Your task to perform on an android device: change notifications settings Image 0: 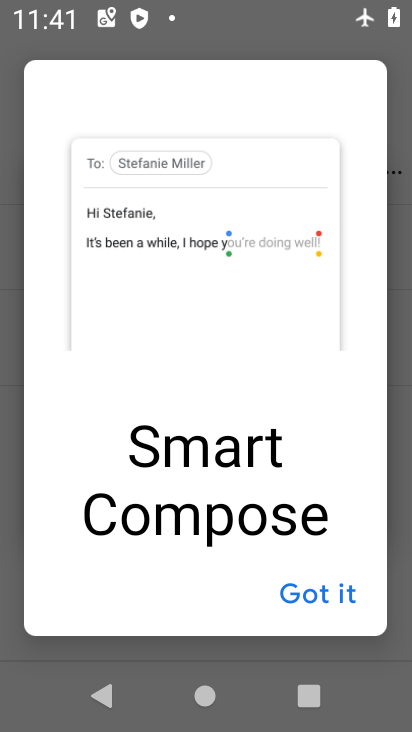
Step 0: press home button
Your task to perform on an android device: change notifications settings Image 1: 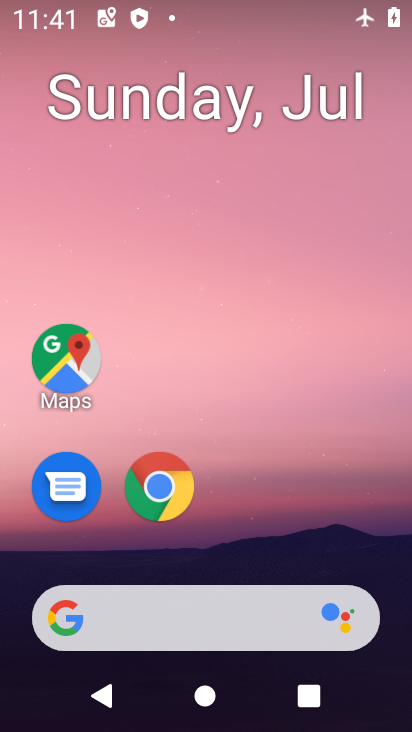
Step 1: drag from (355, 501) to (354, 70)
Your task to perform on an android device: change notifications settings Image 2: 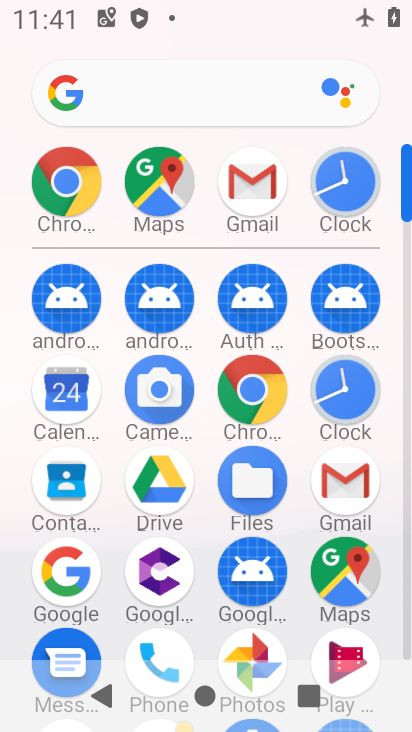
Step 2: drag from (392, 519) to (391, 239)
Your task to perform on an android device: change notifications settings Image 3: 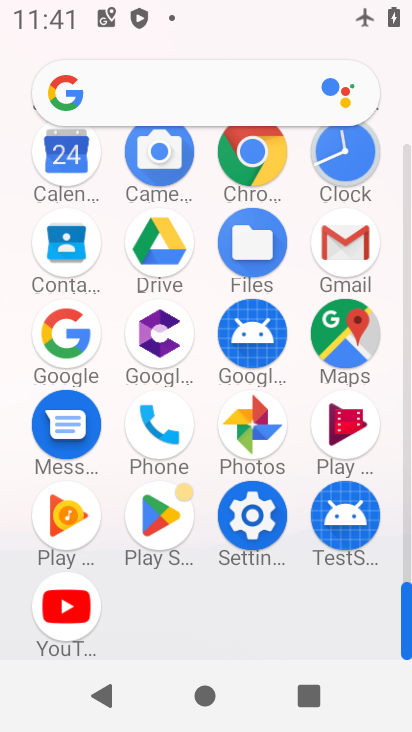
Step 3: click (258, 529)
Your task to perform on an android device: change notifications settings Image 4: 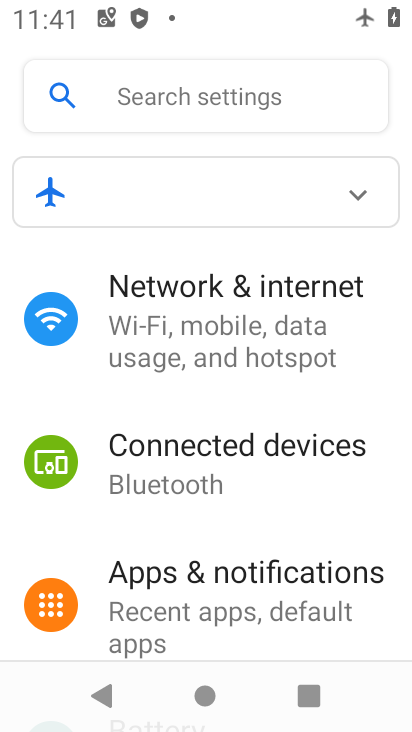
Step 4: drag from (360, 501) to (359, 396)
Your task to perform on an android device: change notifications settings Image 5: 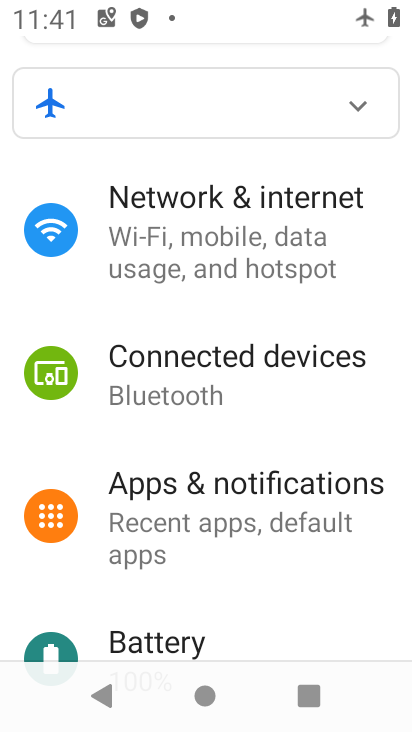
Step 5: drag from (367, 563) to (348, 393)
Your task to perform on an android device: change notifications settings Image 6: 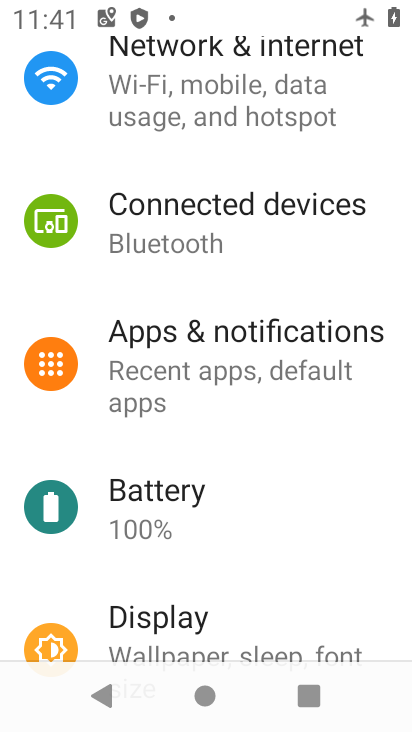
Step 6: drag from (356, 541) to (343, 410)
Your task to perform on an android device: change notifications settings Image 7: 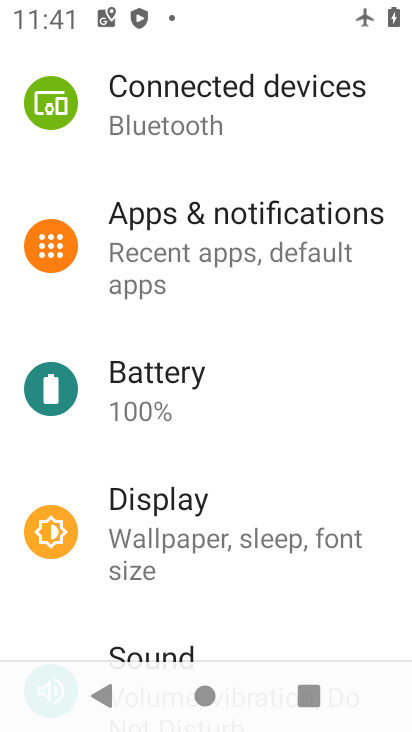
Step 7: drag from (343, 587) to (325, 445)
Your task to perform on an android device: change notifications settings Image 8: 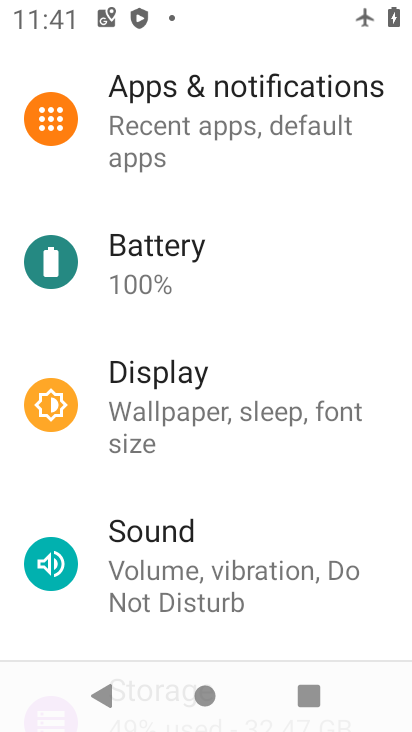
Step 8: click (235, 106)
Your task to perform on an android device: change notifications settings Image 9: 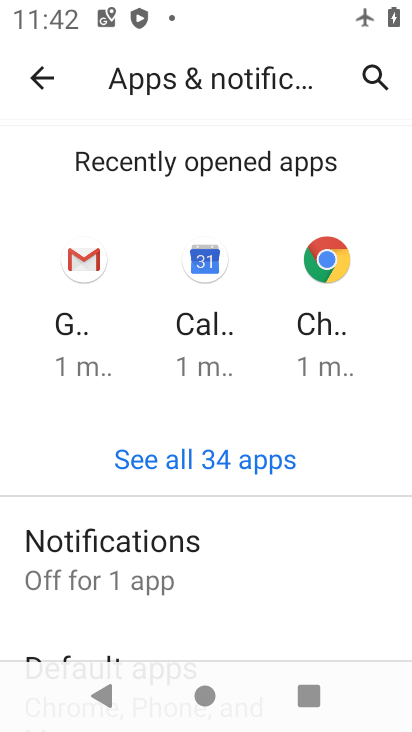
Step 9: drag from (300, 515) to (308, 386)
Your task to perform on an android device: change notifications settings Image 10: 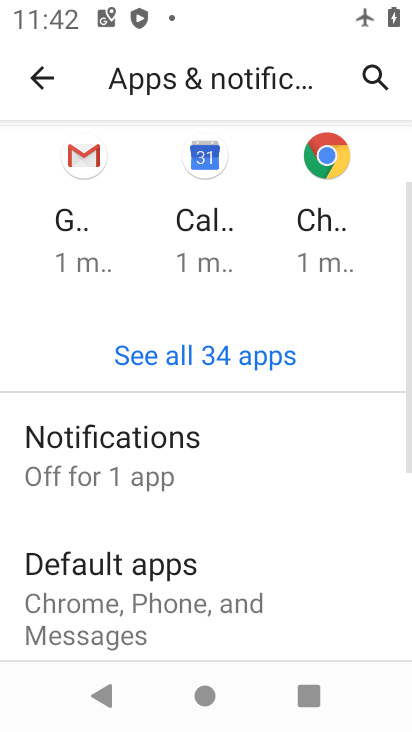
Step 10: drag from (309, 517) to (310, 389)
Your task to perform on an android device: change notifications settings Image 11: 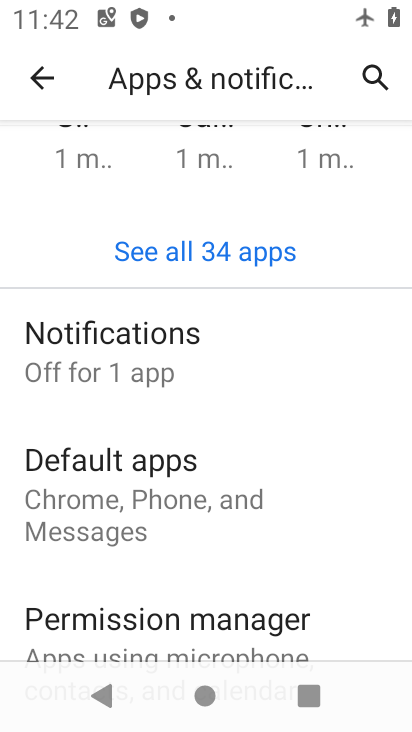
Step 11: drag from (317, 531) to (307, 431)
Your task to perform on an android device: change notifications settings Image 12: 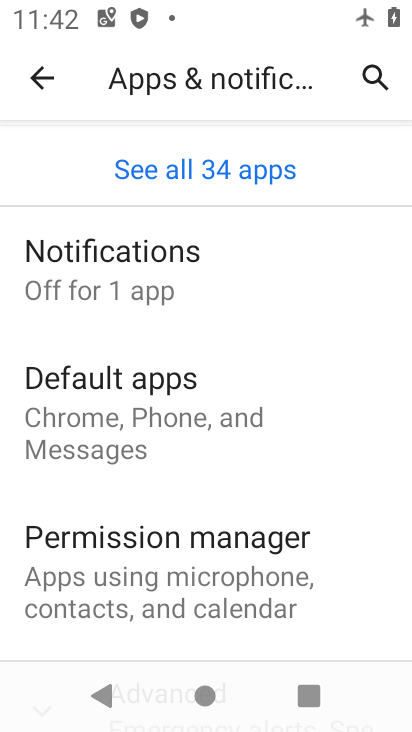
Step 12: click (212, 276)
Your task to perform on an android device: change notifications settings Image 13: 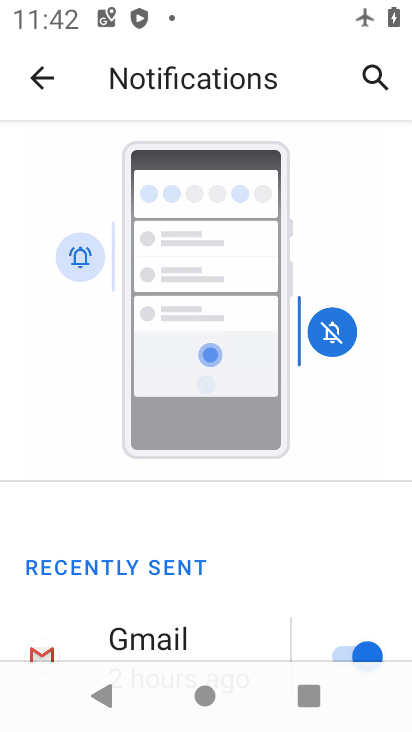
Step 13: drag from (256, 488) to (259, 425)
Your task to perform on an android device: change notifications settings Image 14: 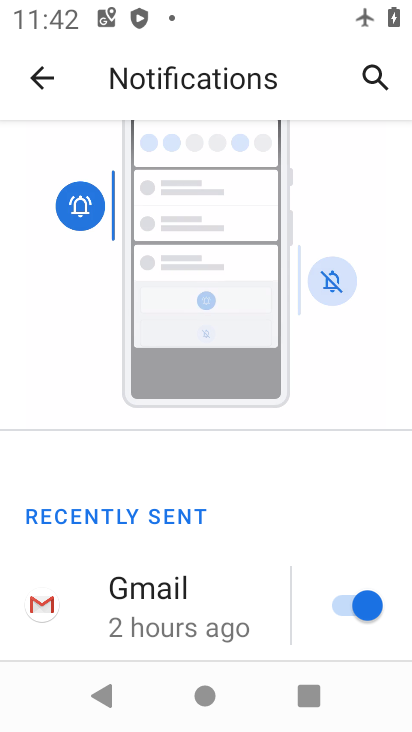
Step 14: drag from (246, 532) to (244, 397)
Your task to perform on an android device: change notifications settings Image 15: 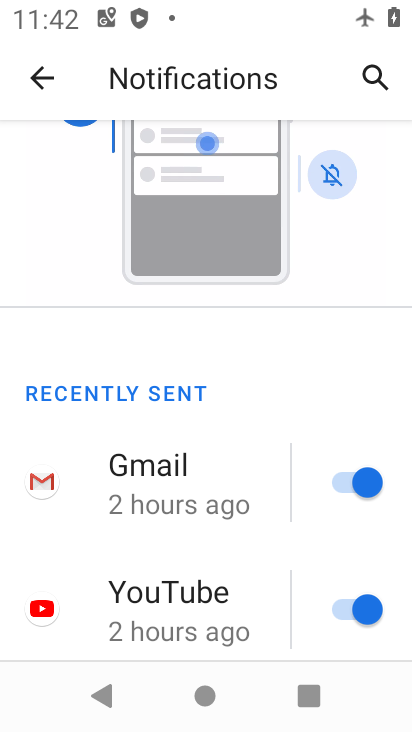
Step 15: drag from (249, 529) to (252, 407)
Your task to perform on an android device: change notifications settings Image 16: 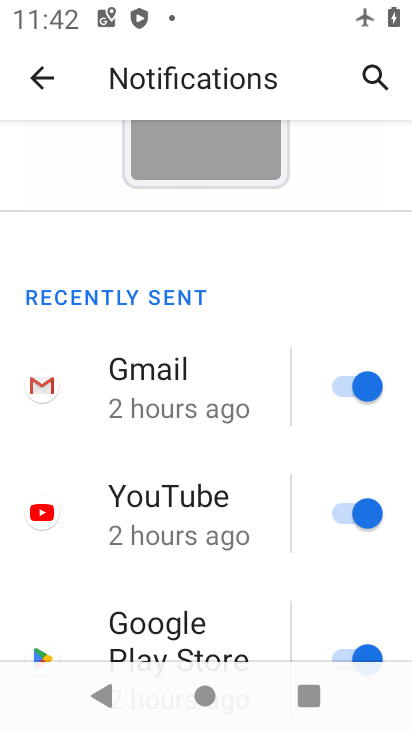
Step 16: drag from (247, 551) to (240, 338)
Your task to perform on an android device: change notifications settings Image 17: 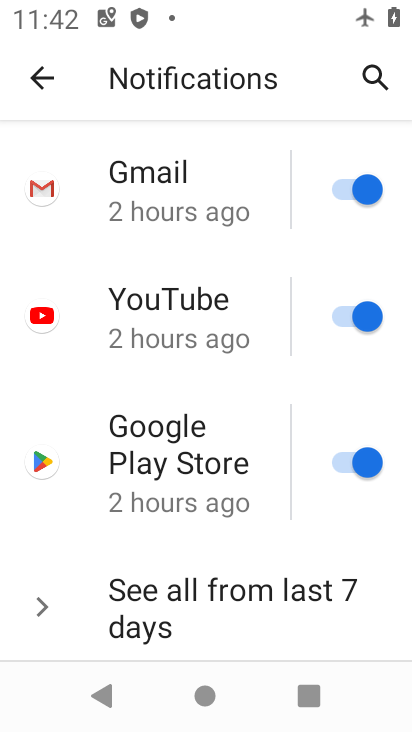
Step 17: drag from (261, 510) to (257, 434)
Your task to perform on an android device: change notifications settings Image 18: 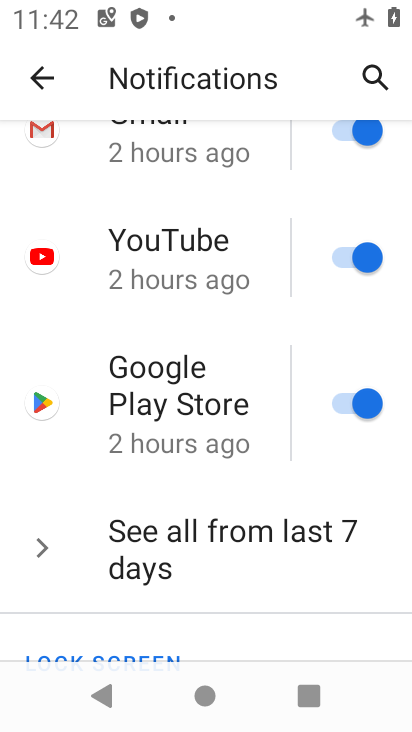
Step 18: click (360, 391)
Your task to perform on an android device: change notifications settings Image 19: 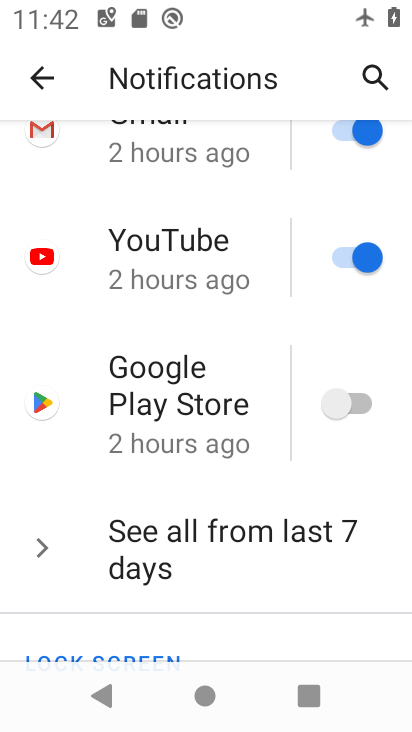
Step 19: click (367, 262)
Your task to perform on an android device: change notifications settings Image 20: 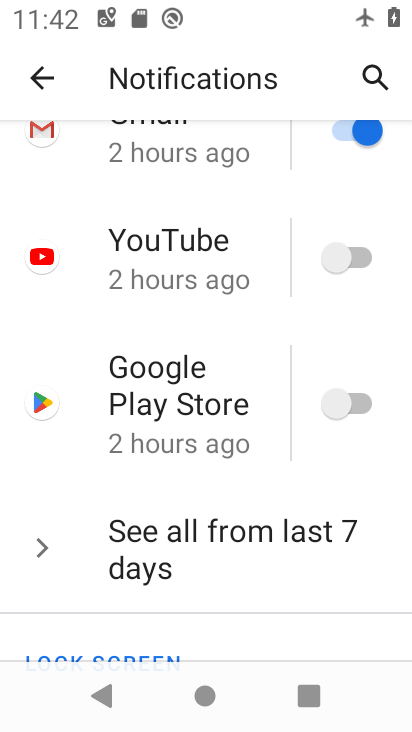
Step 20: click (363, 145)
Your task to perform on an android device: change notifications settings Image 21: 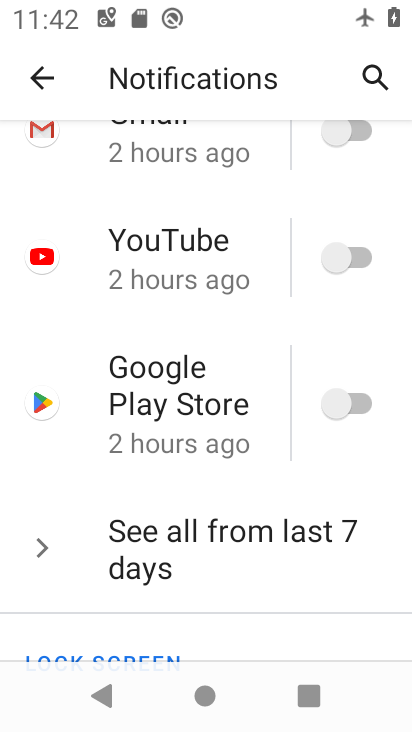
Step 21: task complete